Your task to perform on an android device: Open Youtube and go to the subscriptions tab Image 0: 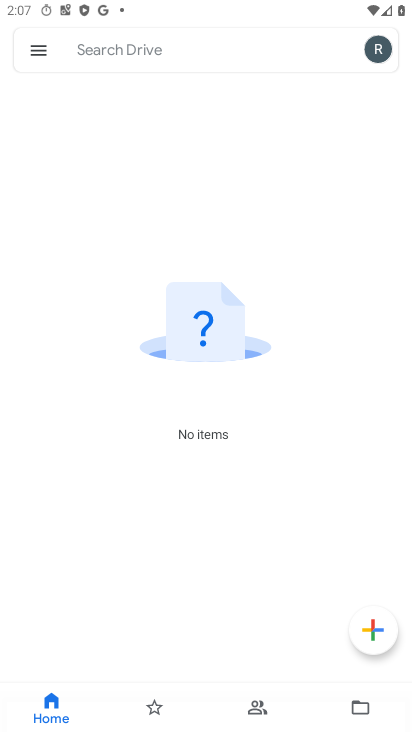
Step 0: press home button
Your task to perform on an android device: Open Youtube and go to the subscriptions tab Image 1: 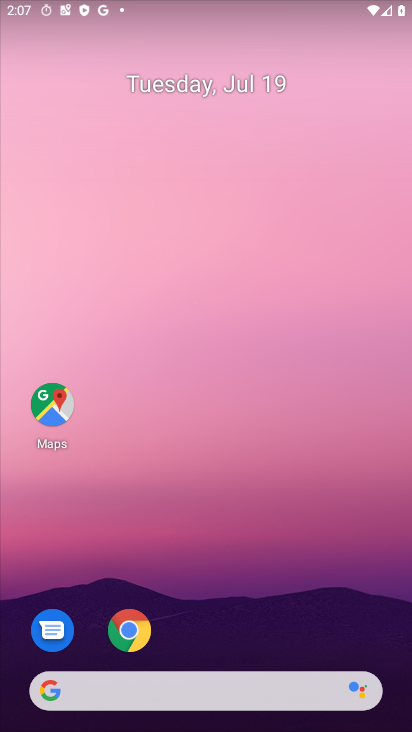
Step 1: drag from (273, 591) to (273, 23)
Your task to perform on an android device: Open Youtube and go to the subscriptions tab Image 2: 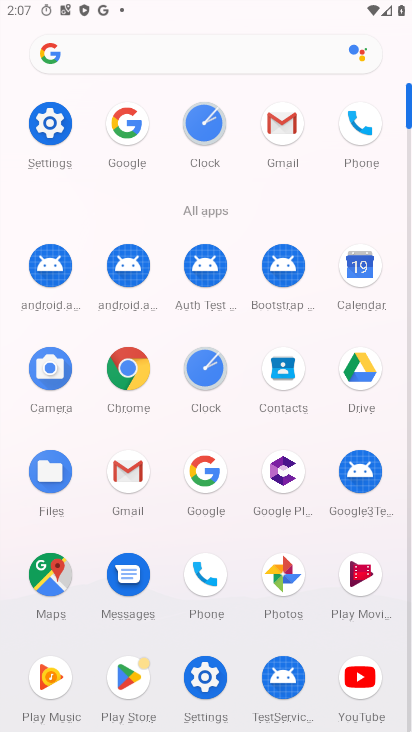
Step 2: click (369, 679)
Your task to perform on an android device: Open Youtube and go to the subscriptions tab Image 3: 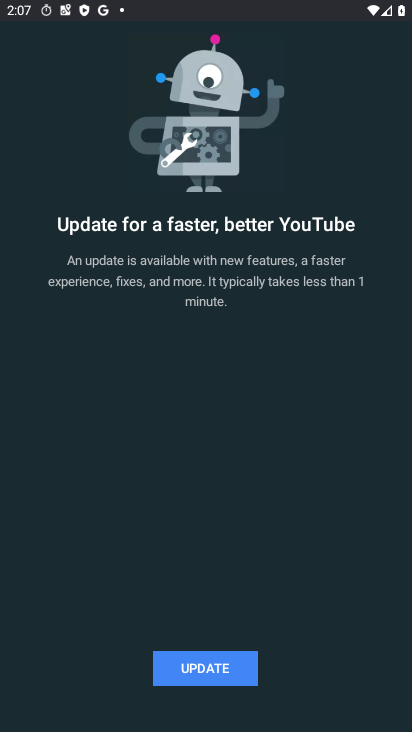
Step 3: click (213, 664)
Your task to perform on an android device: Open Youtube and go to the subscriptions tab Image 4: 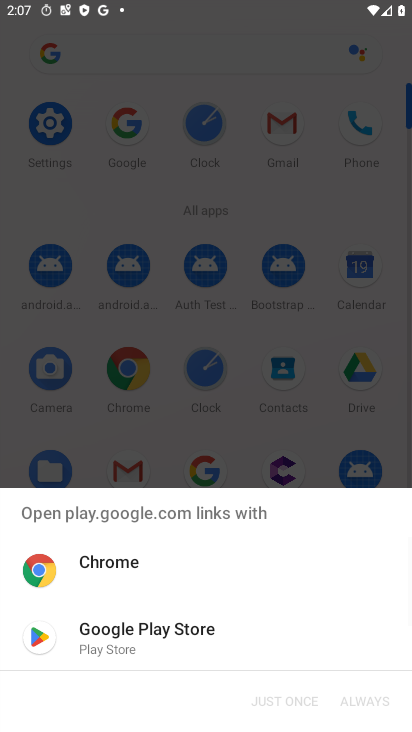
Step 4: click (198, 659)
Your task to perform on an android device: Open Youtube and go to the subscriptions tab Image 5: 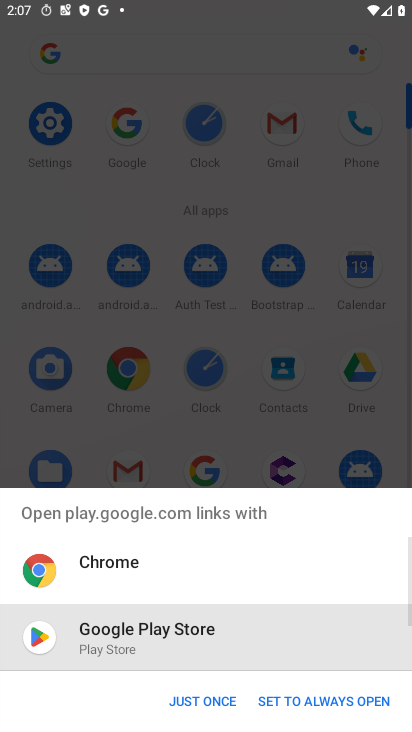
Step 5: click (209, 699)
Your task to perform on an android device: Open Youtube and go to the subscriptions tab Image 6: 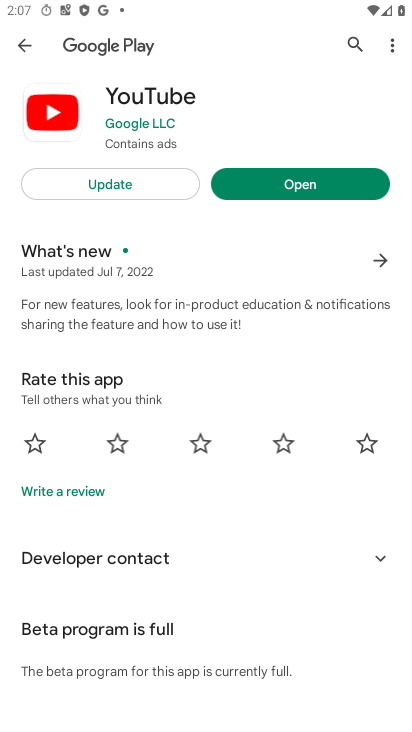
Step 6: click (161, 182)
Your task to perform on an android device: Open Youtube and go to the subscriptions tab Image 7: 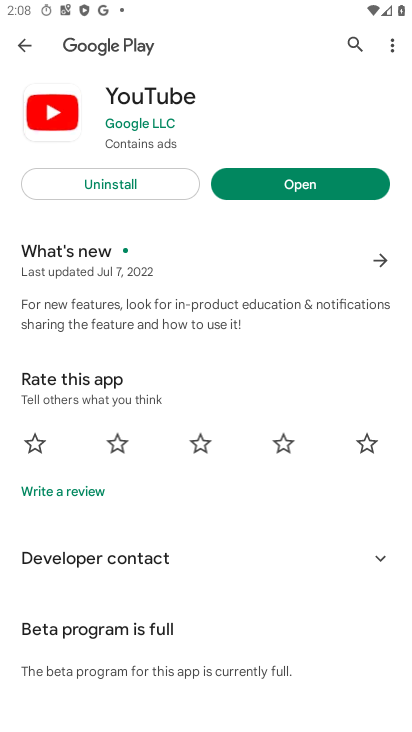
Step 7: click (295, 174)
Your task to perform on an android device: Open Youtube and go to the subscriptions tab Image 8: 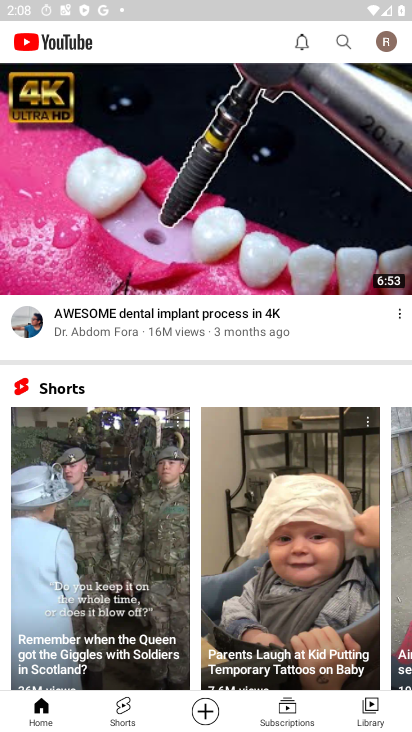
Step 8: click (281, 704)
Your task to perform on an android device: Open Youtube and go to the subscriptions tab Image 9: 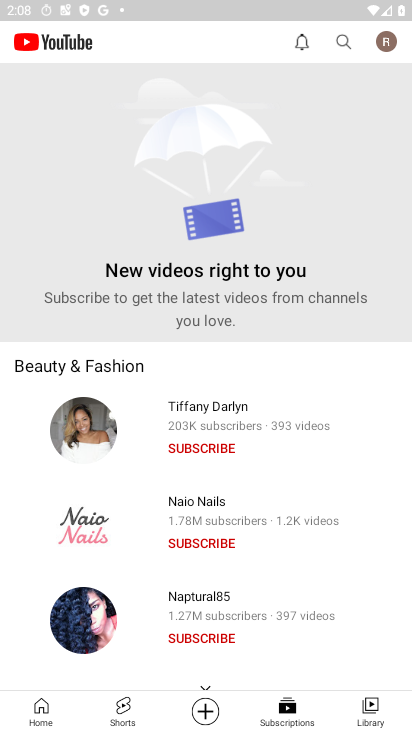
Step 9: task complete